Your task to perform on an android device: turn on location history Image 0: 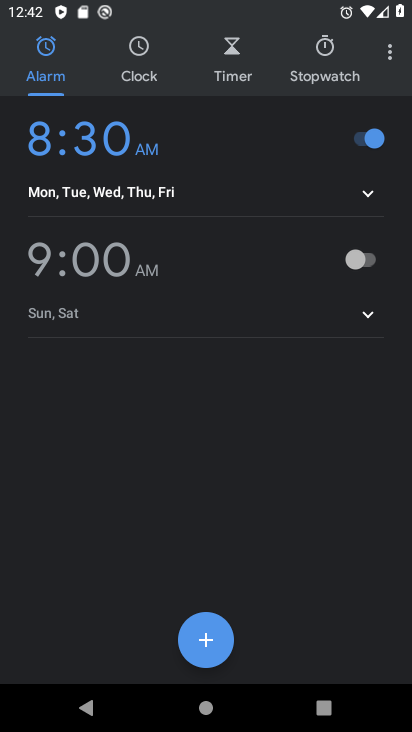
Step 0: press home button
Your task to perform on an android device: turn on location history Image 1: 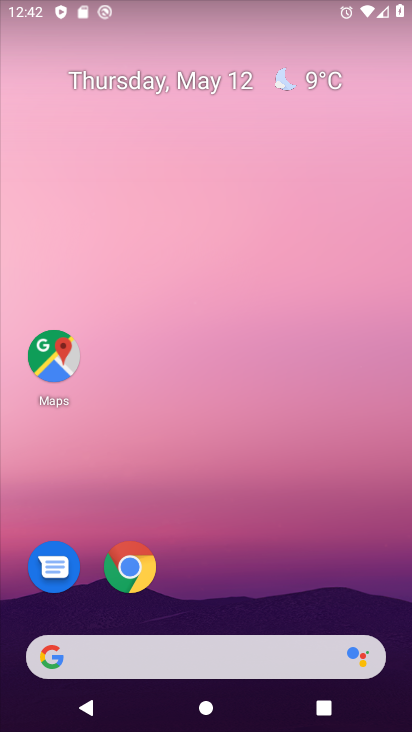
Step 1: drag from (186, 621) to (280, 116)
Your task to perform on an android device: turn on location history Image 2: 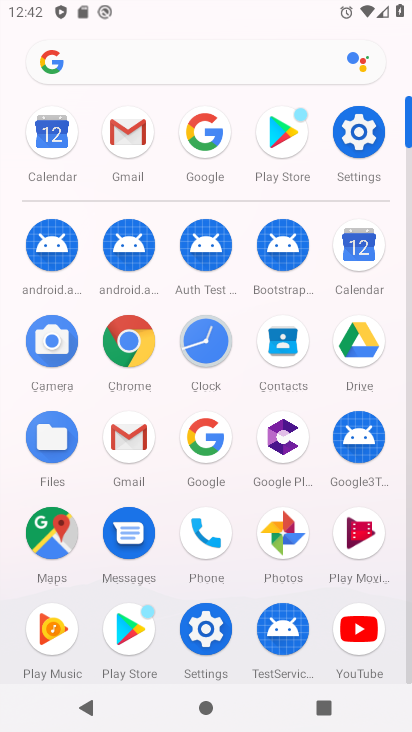
Step 2: click (212, 628)
Your task to perform on an android device: turn on location history Image 3: 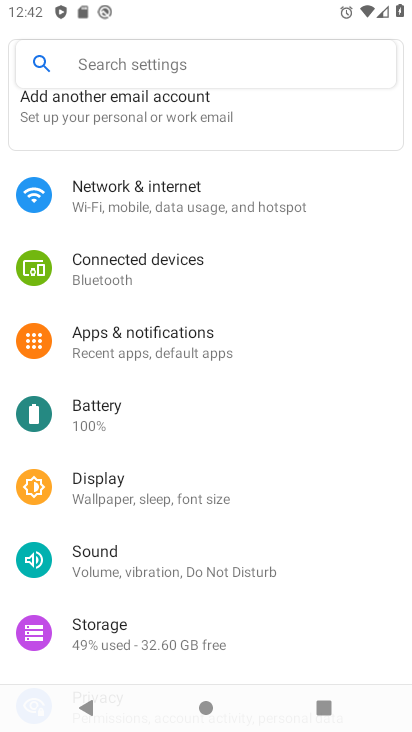
Step 3: drag from (156, 649) to (295, 233)
Your task to perform on an android device: turn on location history Image 4: 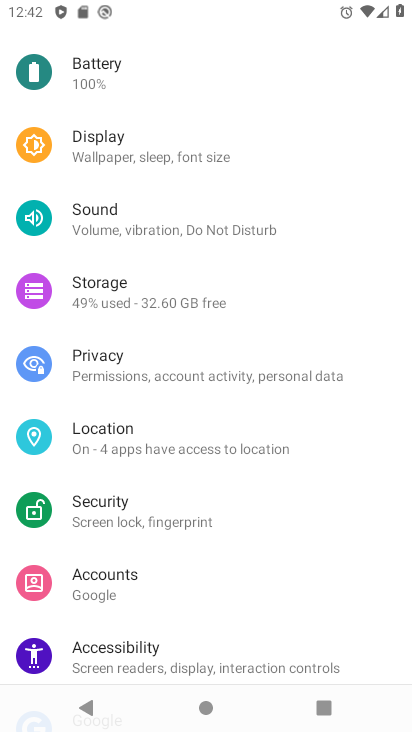
Step 4: click (154, 448)
Your task to perform on an android device: turn on location history Image 5: 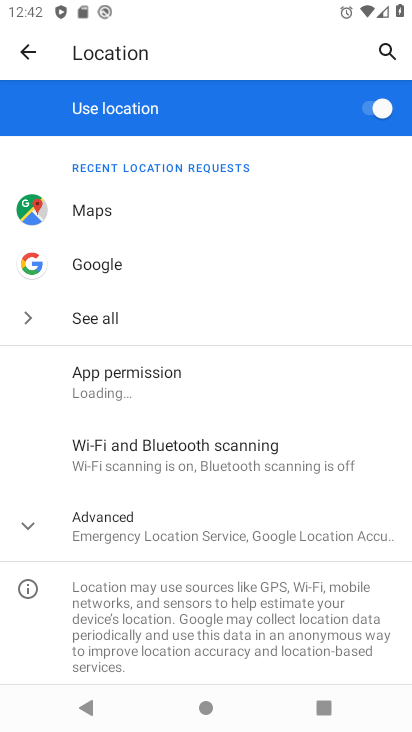
Step 5: click (176, 540)
Your task to perform on an android device: turn on location history Image 6: 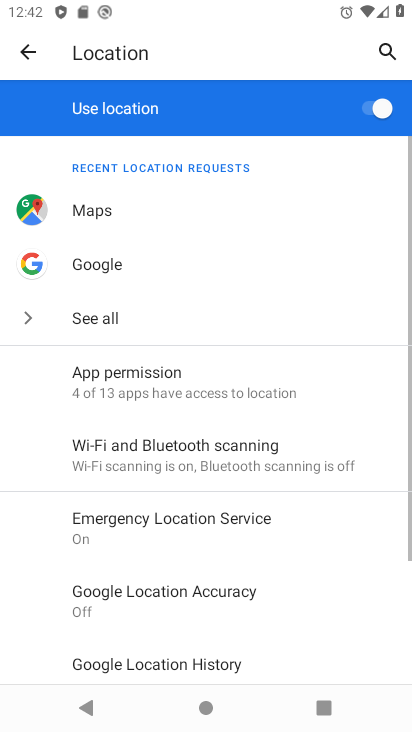
Step 6: drag from (170, 592) to (301, 249)
Your task to perform on an android device: turn on location history Image 7: 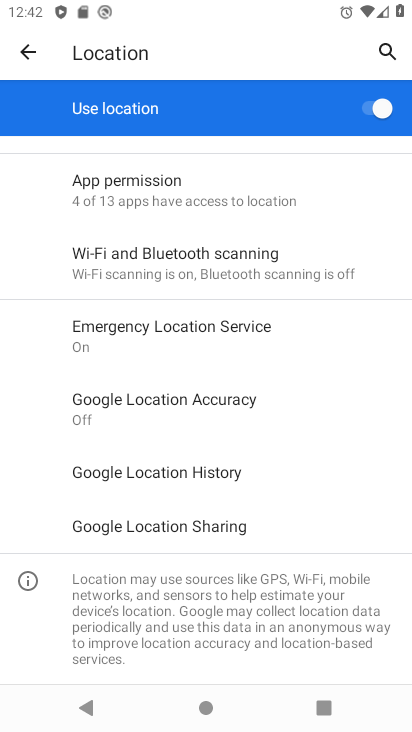
Step 7: click (248, 473)
Your task to perform on an android device: turn on location history Image 8: 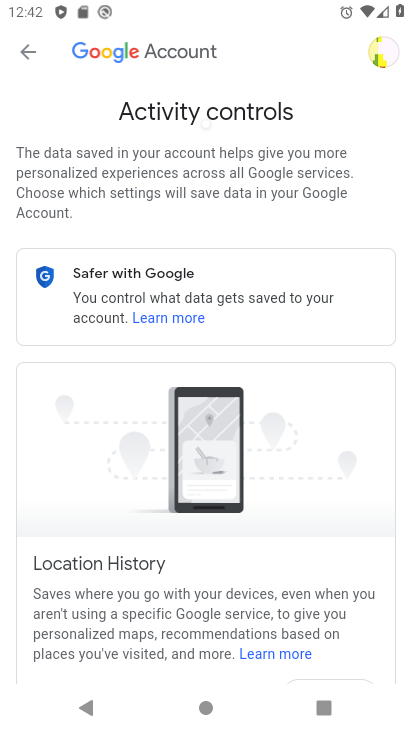
Step 8: drag from (259, 624) to (398, 184)
Your task to perform on an android device: turn on location history Image 9: 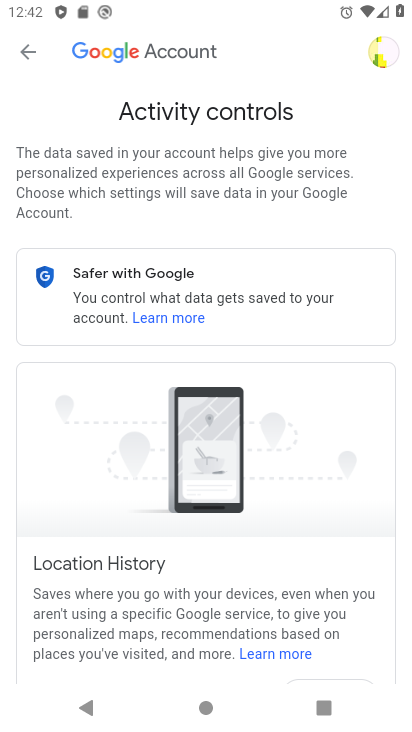
Step 9: drag from (182, 611) to (313, 263)
Your task to perform on an android device: turn on location history Image 10: 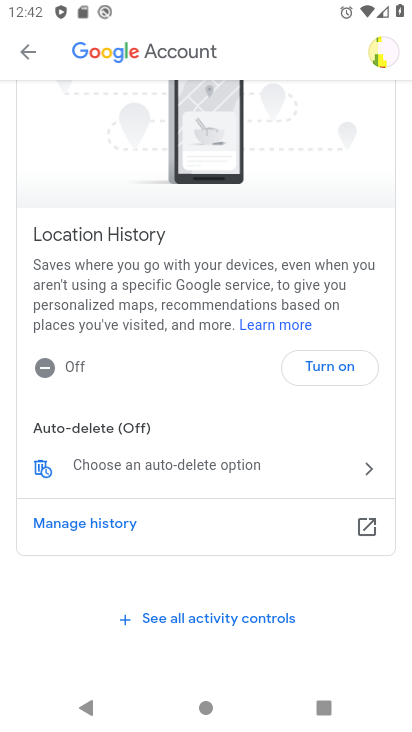
Step 10: click (334, 383)
Your task to perform on an android device: turn on location history Image 11: 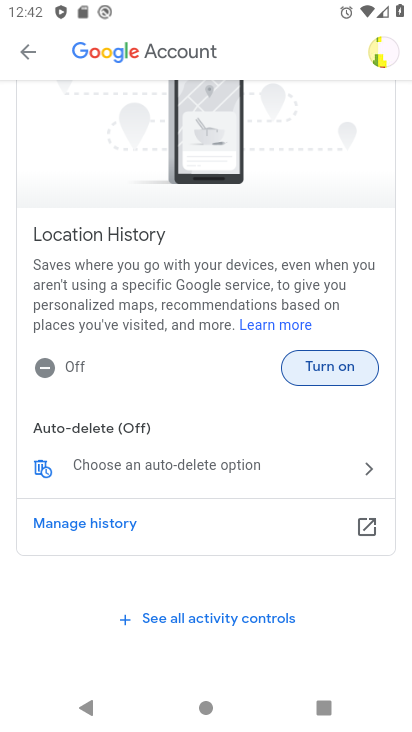
Step 11: click (333, 369)
Your task to perform on an android device: turn on location history Image 12: 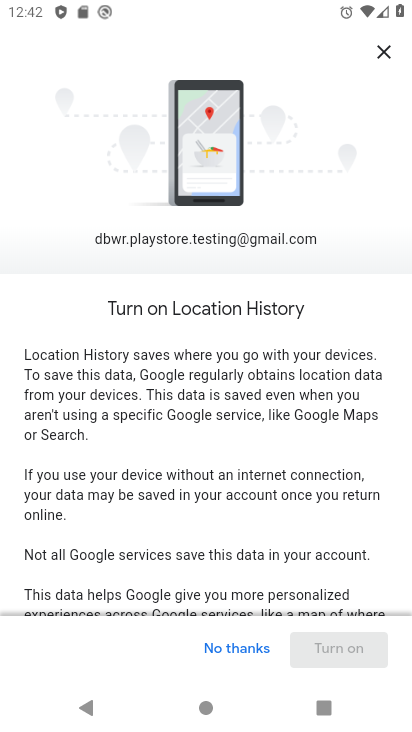
Step 12: drag from (281, 543) to (393, 52)
Your task to perform on an android device: turn on location history Image 13: 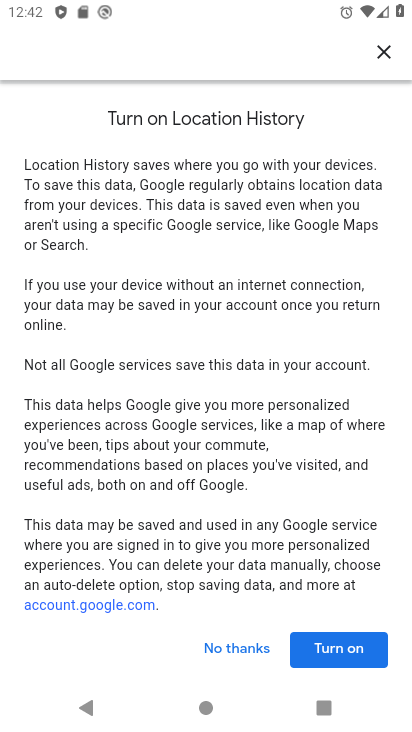
Step 13: click (324, 653)
Your task to perform on an android device: turn on location history Image 14: 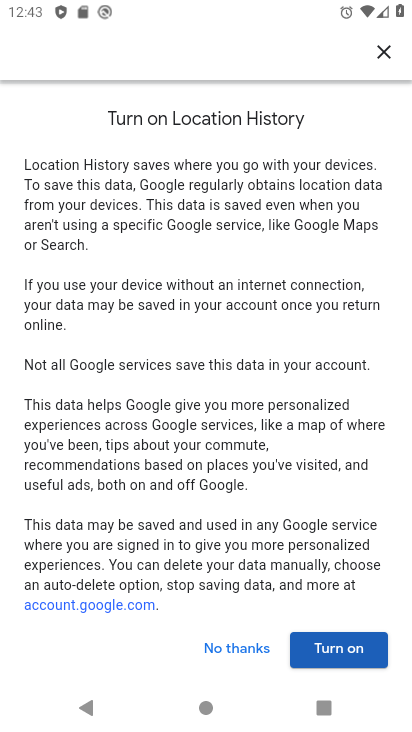
Step 14: click (324, 652)
Your task to perform on an android device: turn on location history Image 15: 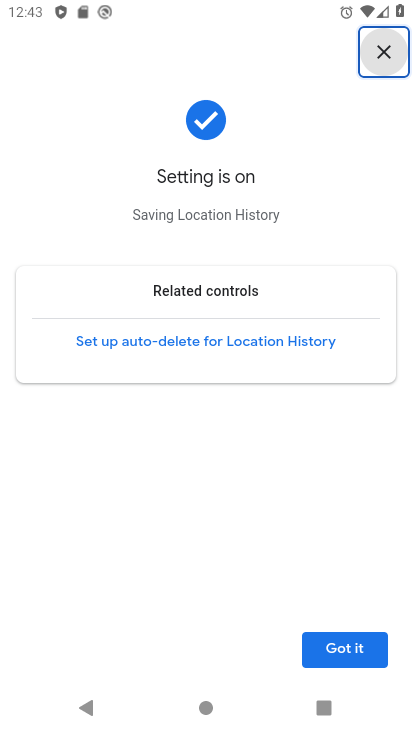
Step 15: click (366, 654)
Your task to perform on an android device: turn on location history Image 16: 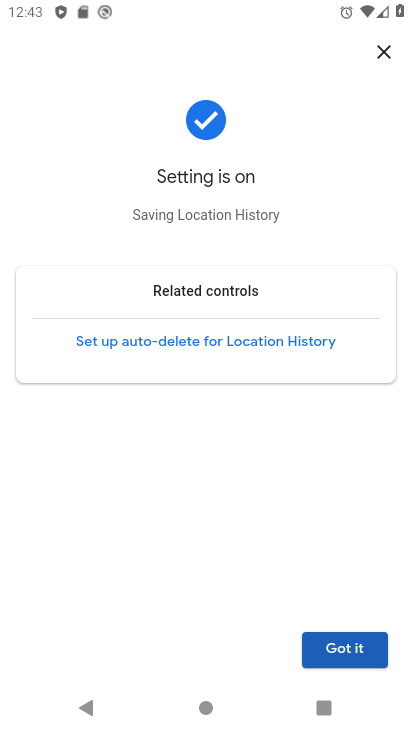
Step 16: click (361, 637)
Your task to perform on an android device: turn on location history Image 17: 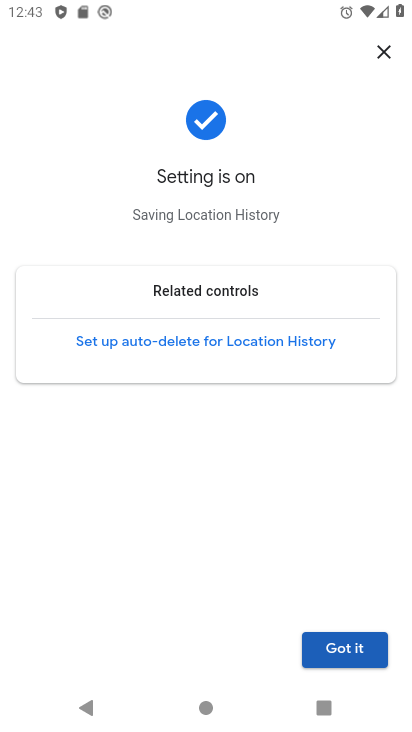
Step 17: click (384, 644)
Your task to perform on an android device: turn on location history Image 18: 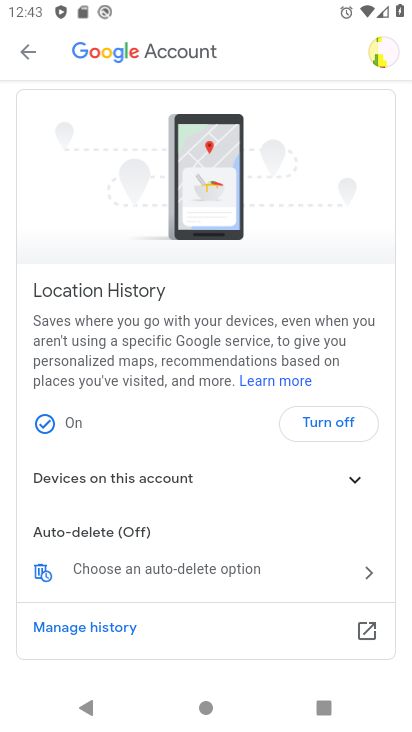
Step 18: task complete